Your task to perform on an android device: Open the web browser Image 0: 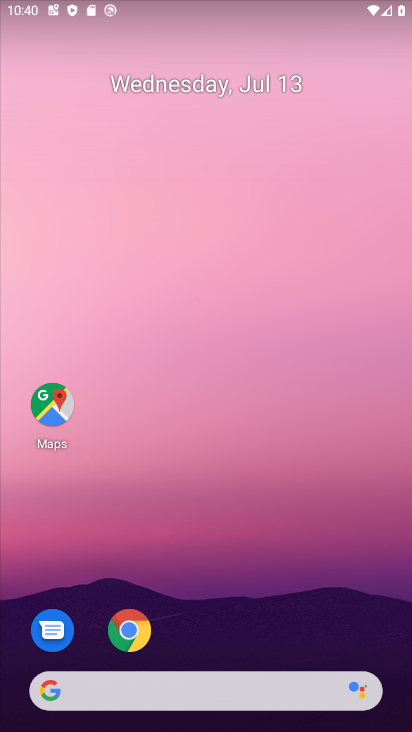
Step 0: drag from (315, 540) to (355, 66)
Your task to perform on an android device: Open the web browser Image 1: 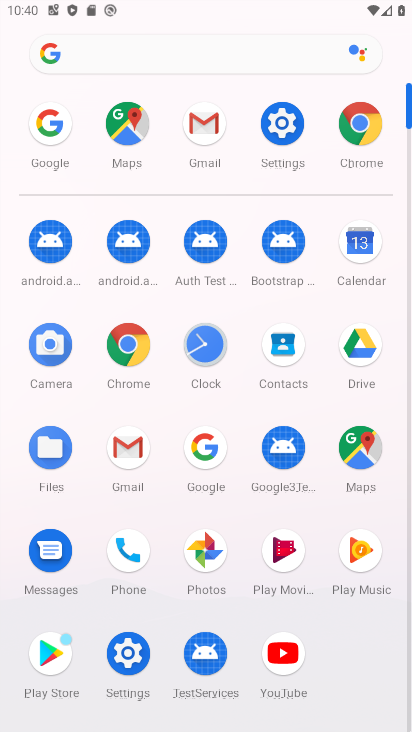
Step 1: click (379, 129)
Your task to perform on an android device: Open the web browser Image 2: 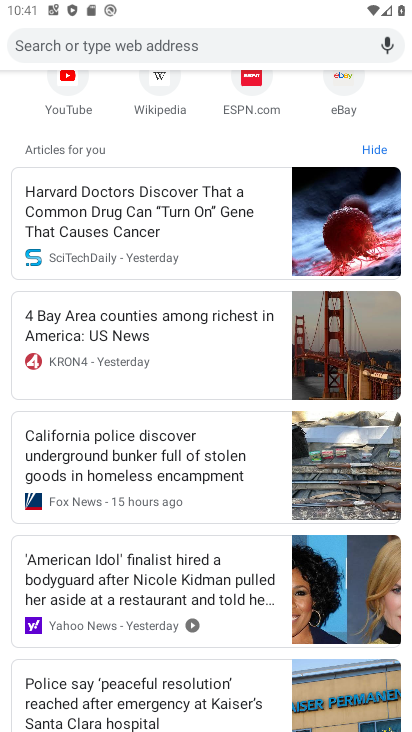
Step 2: task complete